Your task to perform on an android device: Open wifi settings Image 0: 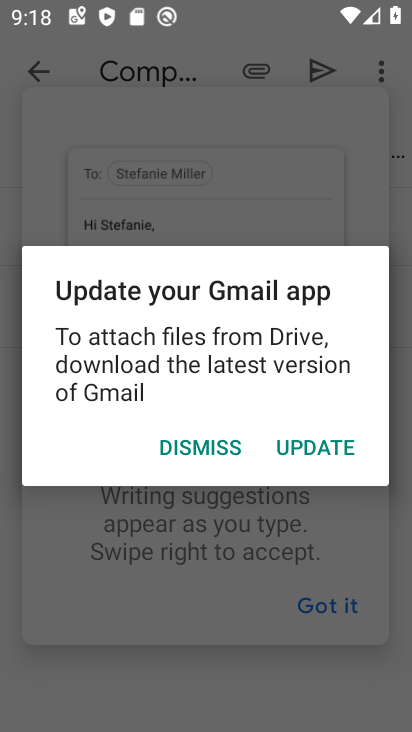
Step 0: press home button
Your task to perform on an android device: Open wifi settings Image 1: 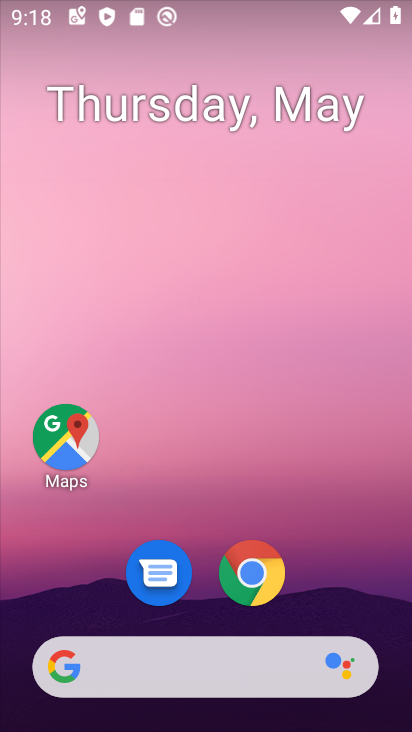
Step 1: drag from (310, 564) to (299, 107)
Your task to perform on an android device: Open wifi settings Image 2: 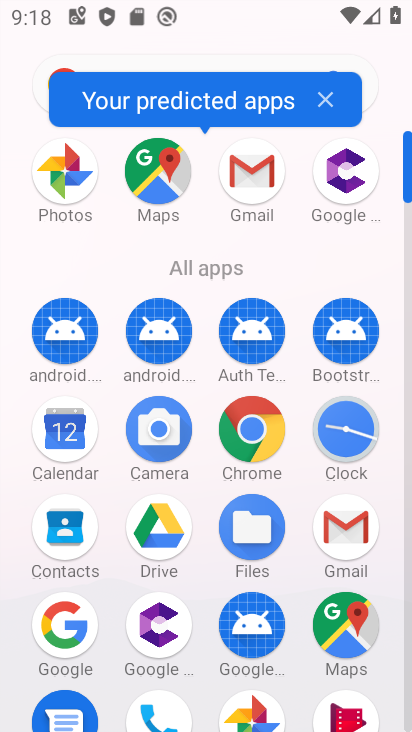
Step 2: drag from (204, 594) to (203, 274)
Your task to perform on an android device: Open wifi settings Image 3: 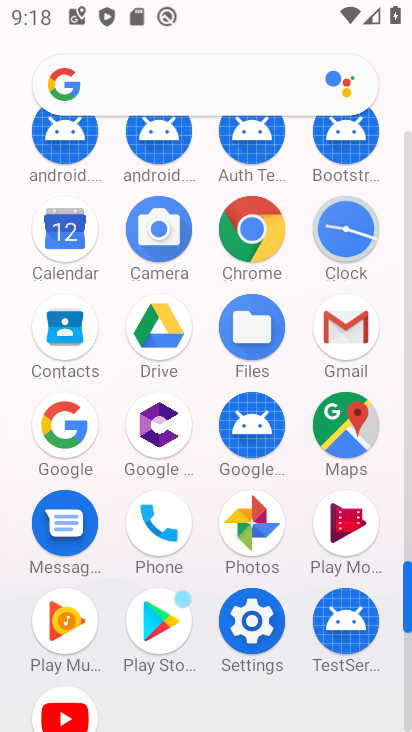
Step 3: click (247, 640)
Your task to perform on an android device: Open wifi settings Image 4: 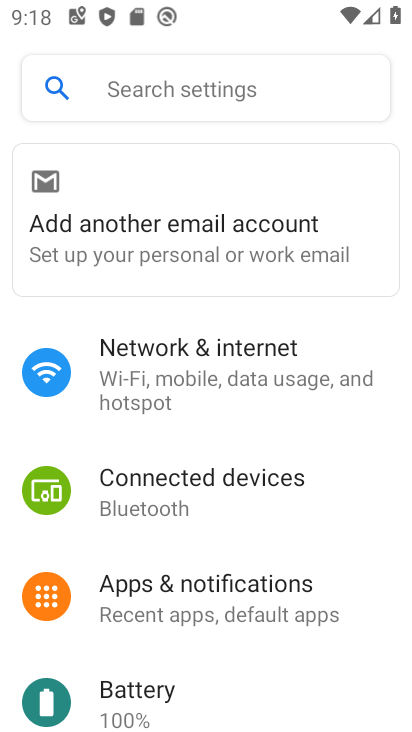
Step 4: click (218, 381)
Your task to perform on an android device: Open wifi settings Image 5: 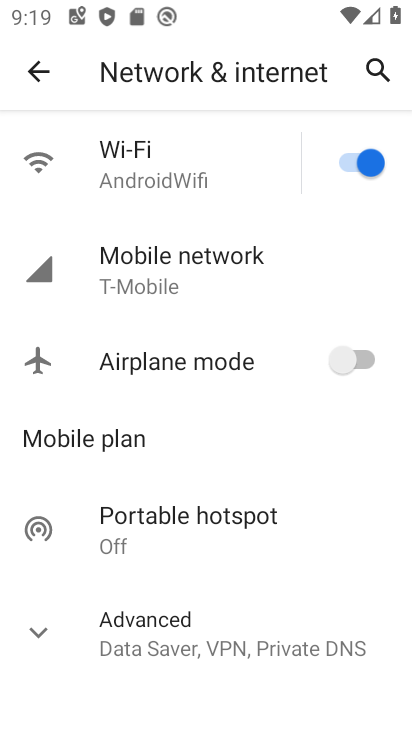
Step 5: click (167, 177)
Your task to perform on an android device: Open wifi settings Image 6: 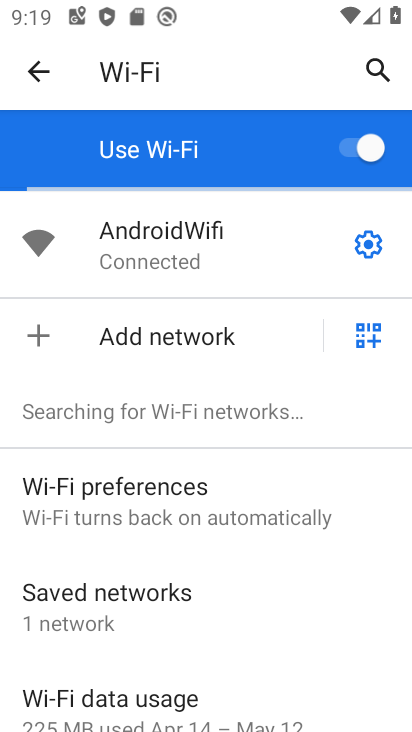
Step 6: task complete